Your task to perform on an android device: What's the weather today? Image 0: 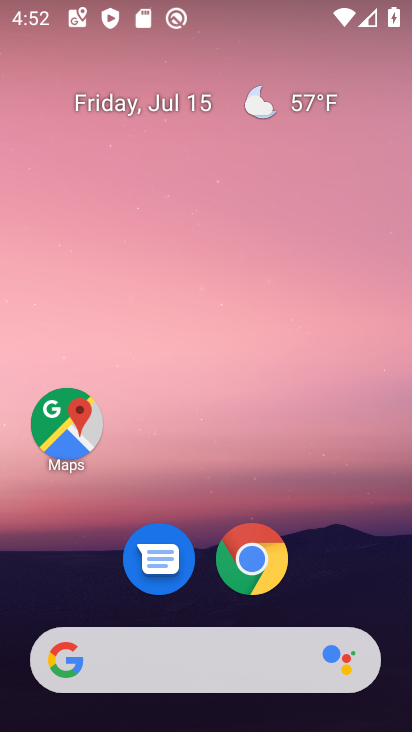
Step 0: click (193, 642)
Your task to perform on an android device: What's the weather today? Image 1: 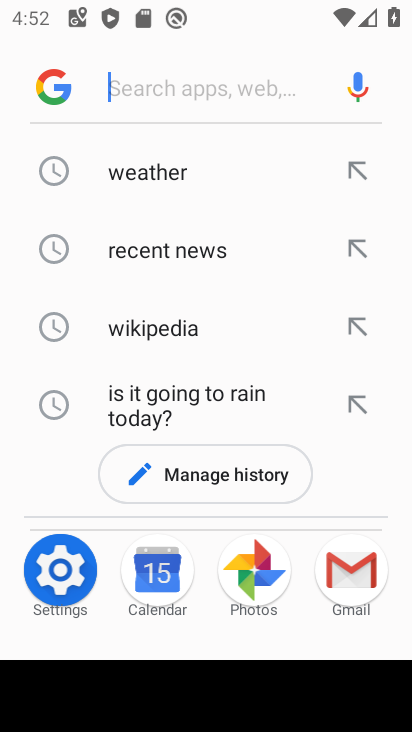
Step 1: click (149, 171)
Your task to perform on an android device: What's the weather today? Image 2: 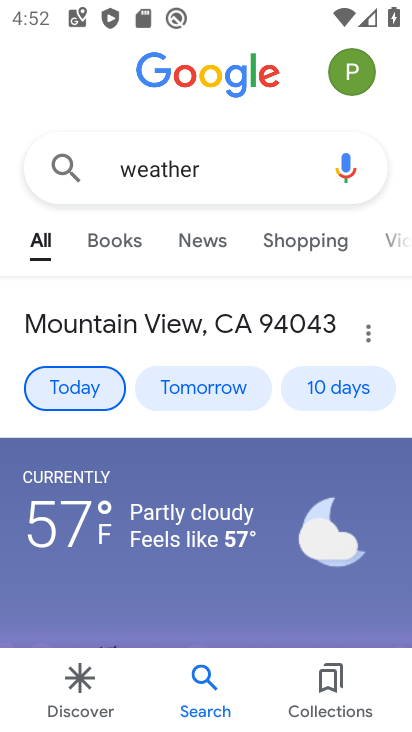
Step 2: task complete